Your task to perform on an android device: Open Google Chrome Image 0: 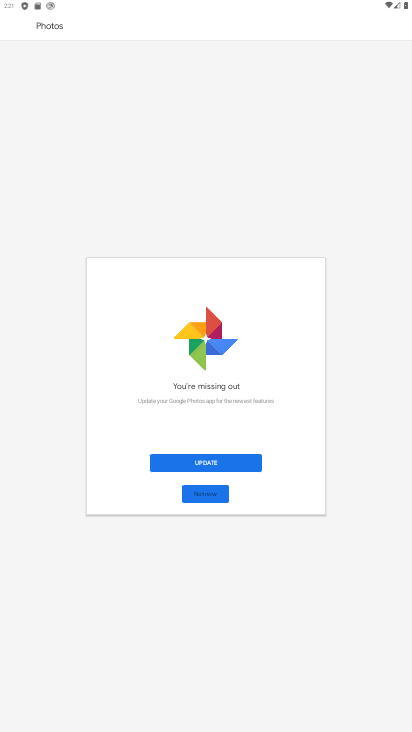
Step 0: press home button
Your task to perform on an android device: Open Google Chrome Image 1: 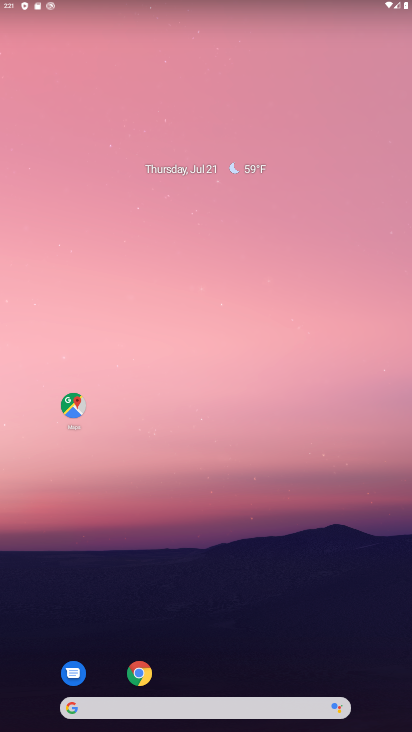
Step 1: click (140, 673)
Your task to perform on an android device: Open Google Chrome Image 2: 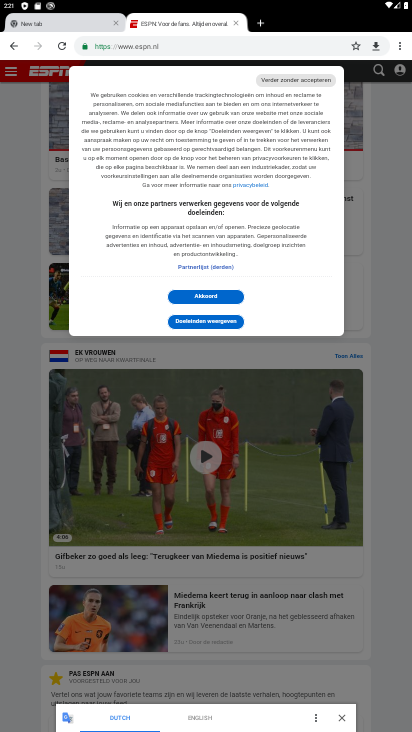
Step 2: task complete